Your task to perform on an android device: What time is it in Tokyo? Image 0: 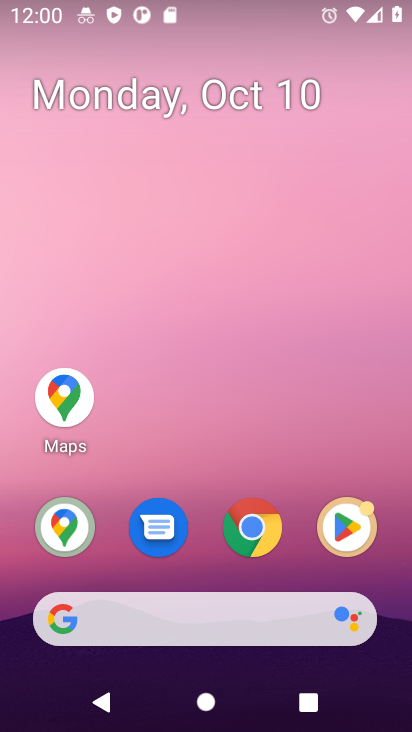
Step 0: click (253, 518)
Your task to perform on an android device: What time is it in Tokyo? Image 1: 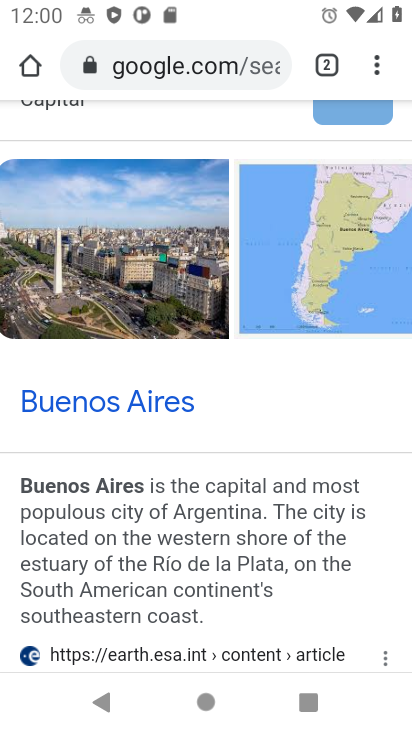
Step 1: click (178, 57)
Your task to perform on an android device: What time is it in Tokyo? Image 2: 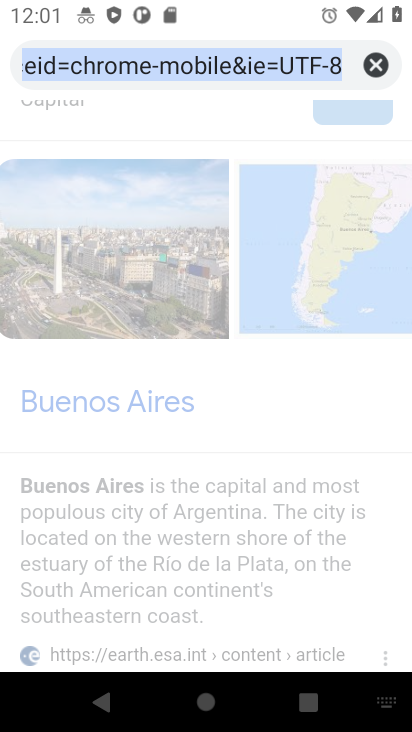
Step 2: type "time in tokyo"
Your task to perform on an android device: What time is it in Tokyo? Image 3: 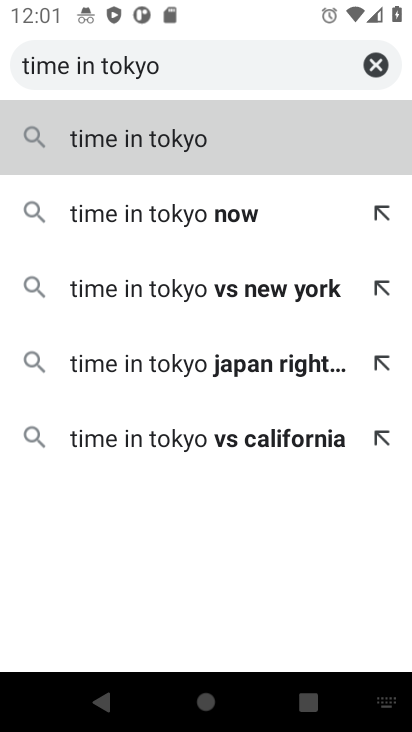
Step 3: click (198, 129)
Your task to perform on an android device: What time is it in Tokyo? Image 4: 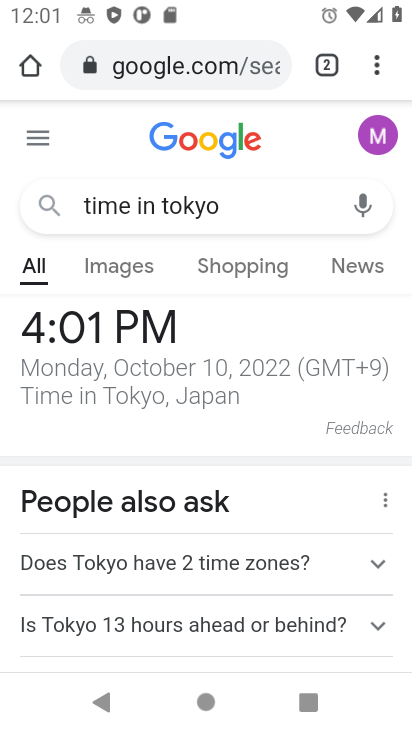
Step 4: task complete